Your task to perform on an android device: clear history in the chrome app Image 0: 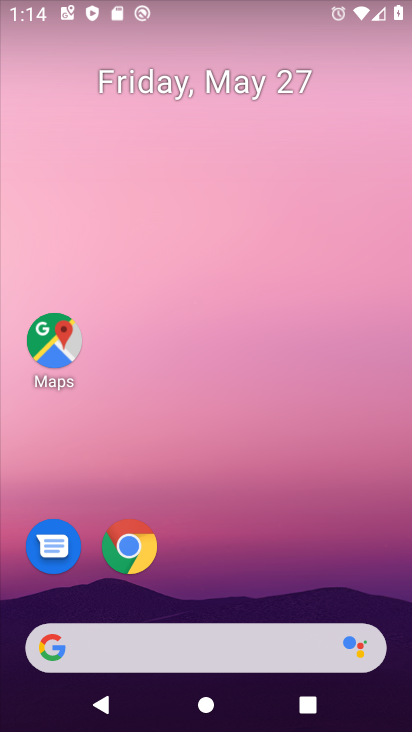
Step 0: press home button
Your task to perform on an android device: clear history in the chrome app Image 1: 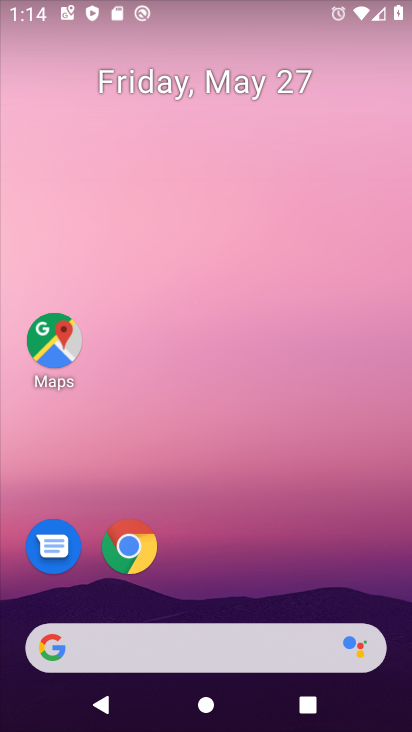
Step 1: drag from (281, 676) to (184, 187)
Your task to perform on an android device: clear history in the chrome app Image 2: 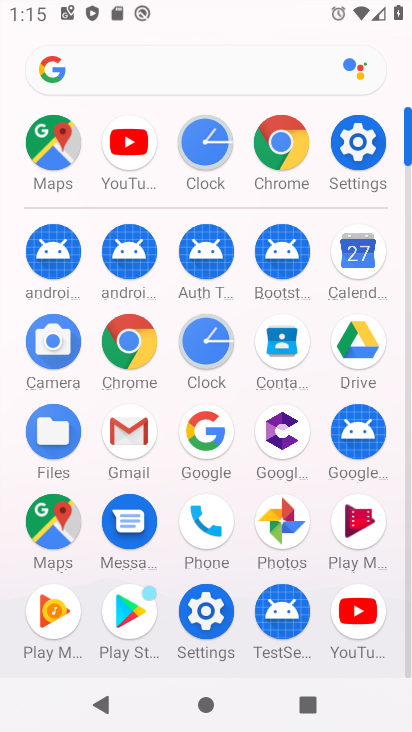
Step 2: click (280, 146)
Your task to perform on an android device: clear history in the chrome app Image 3: 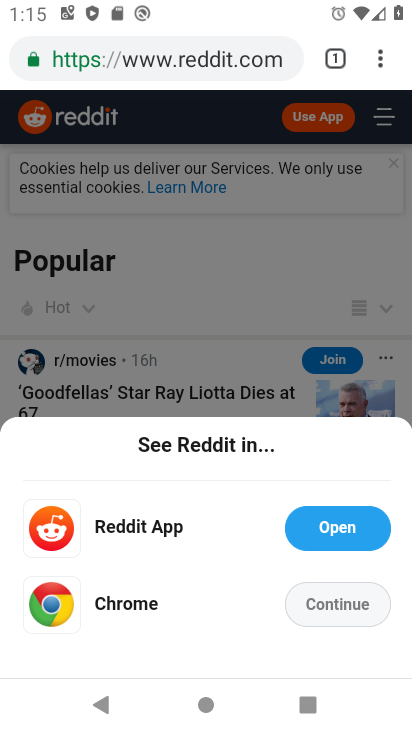
Step 3: click (376, 60)
Your task to perform on an android device: clear history in the chrome app Image 4: 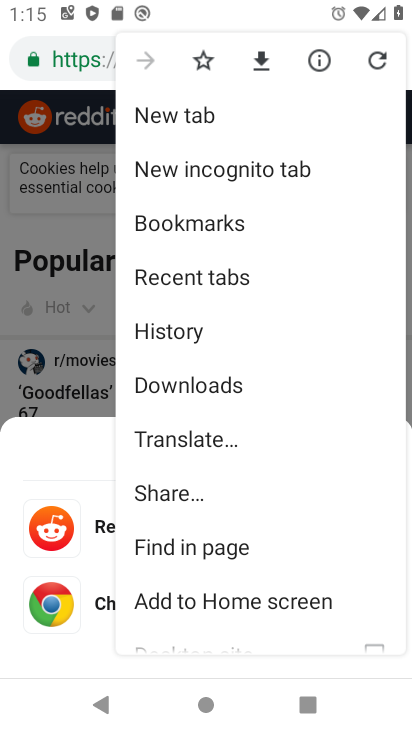
Step 4: click (157, 342)
Your task to perform on an android device: clear history in the chrome app Image 5: 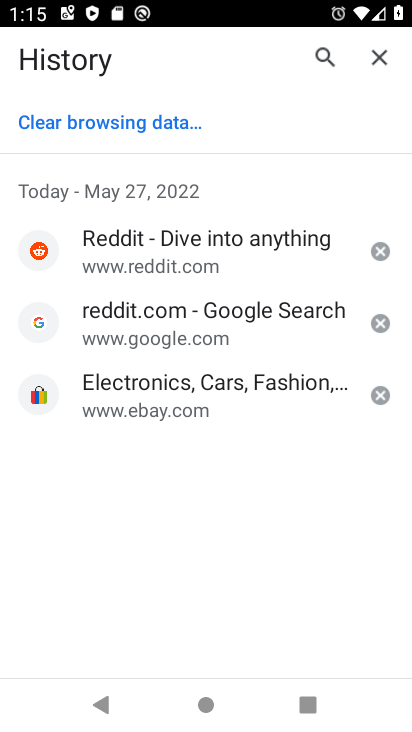
Step 5: click (92, 122)
Your task to perform on an android device: clear history in the chrome app Image 6: 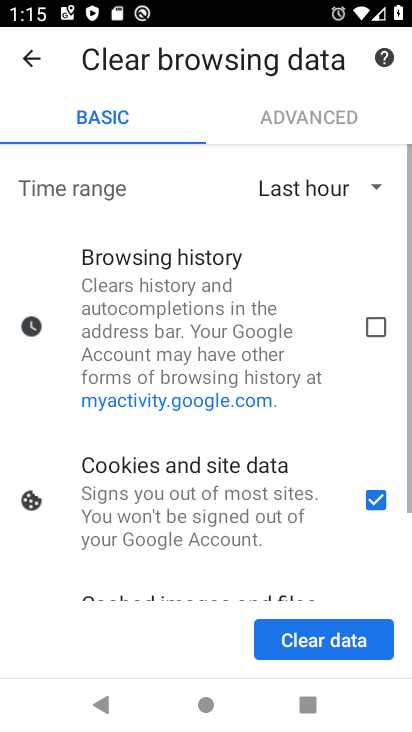
Step 6: click (368, 326)
Your task to perform on an android device: clear history in the chrome app Image 7: 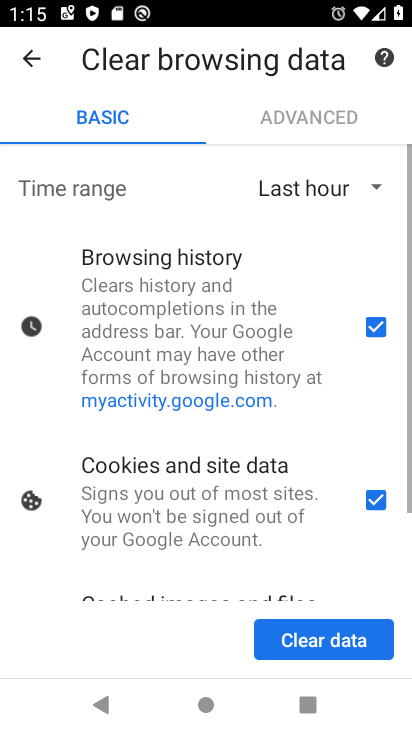
Step 7: click (308, 642)
Your task to perform on an android device: clear history in the chrome app Image 8: 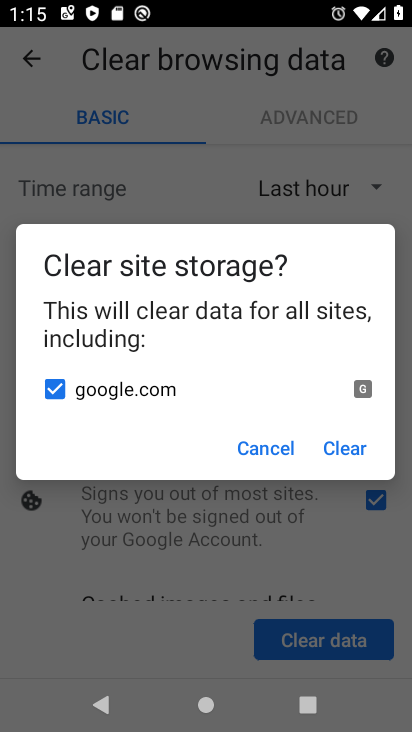
Step 8: click (353, 438)
Your task to perform on an android device: clear history in the chrome app Image 9: 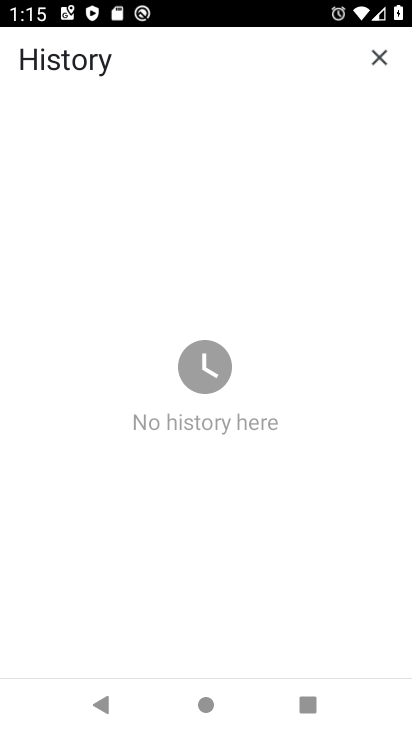
Step 9: task complete